Your task to perform on an android device: toggle sleep mode Image 0: 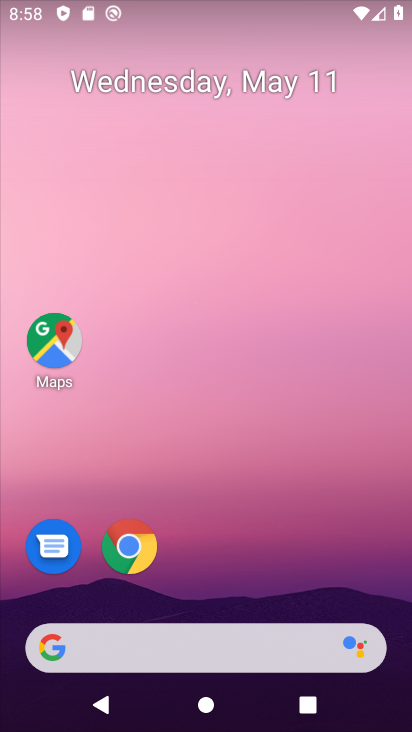
Step 0: drag from (160, 626) to (282, 254)
Your task to perform on an android device: toggle sleep mode Image 1: 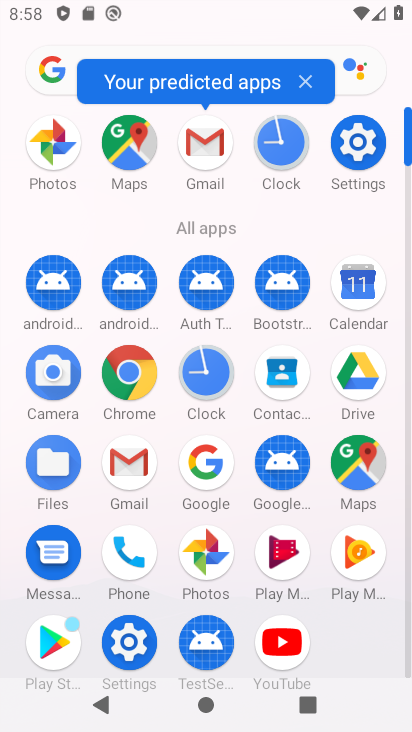
Step 1: click (118, 651)
Your task to perform on an android device: toggle sleep mode Image 2: 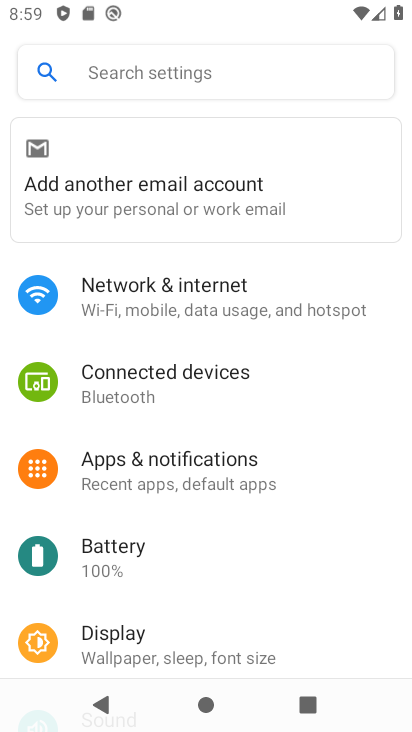
Step 2: click (148, 634)
Your task to perform on an android device: toggle sleep mode Image 3: 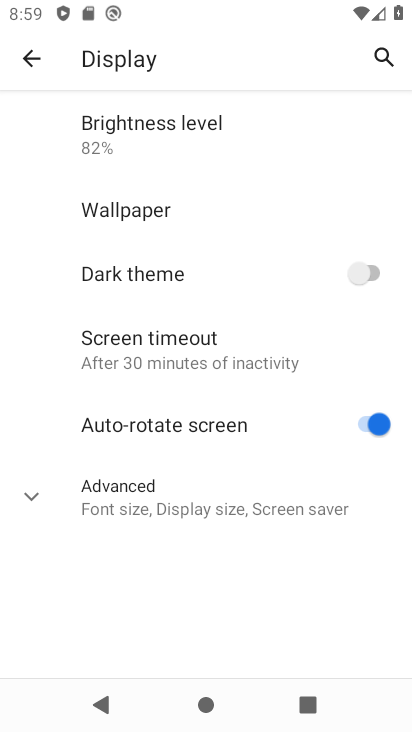
Step 3: click (147, 526)
Your task to perform on an android device: toggle sleep mode Image 4: 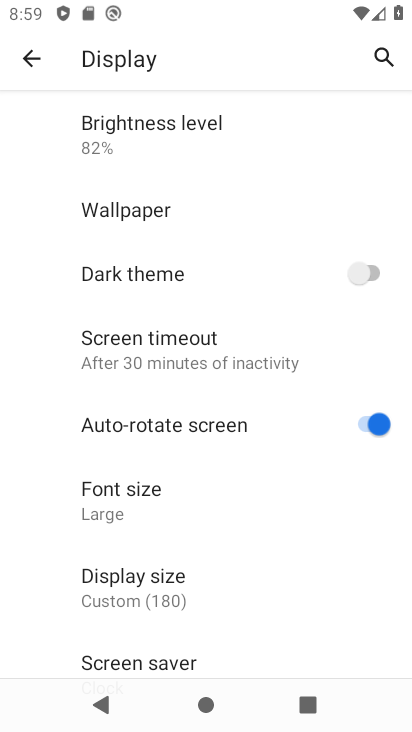
Step 4: task complete